Your task to perform on an android device: What's the weather? Image 0: 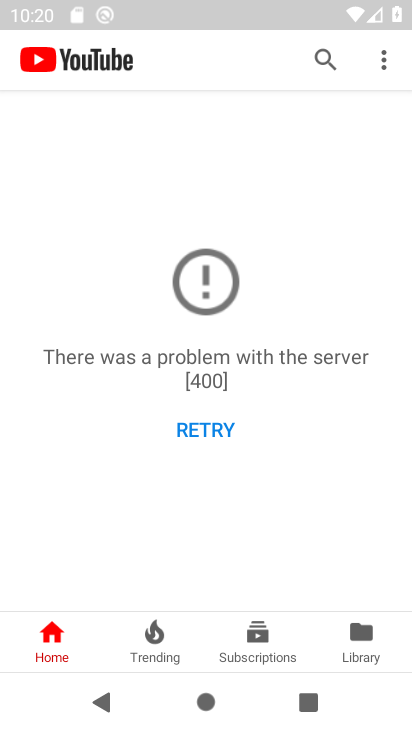
Step 0: press home button
Your task to perform on an android device: What's the weather? Image 1: 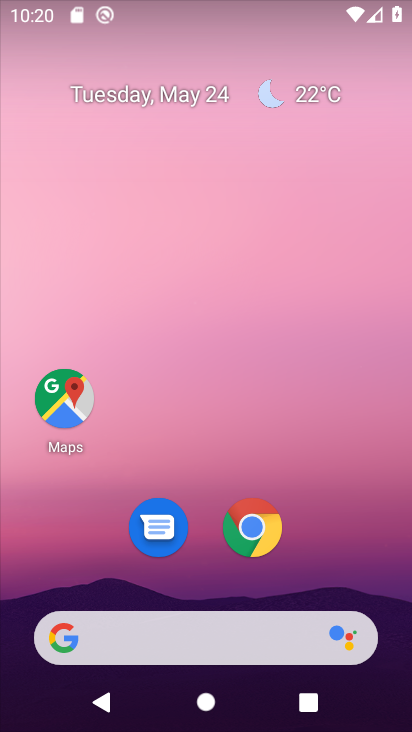
Step 1: click (73, 637)
Your task to perform on an android device: What's the weather? Image 2: 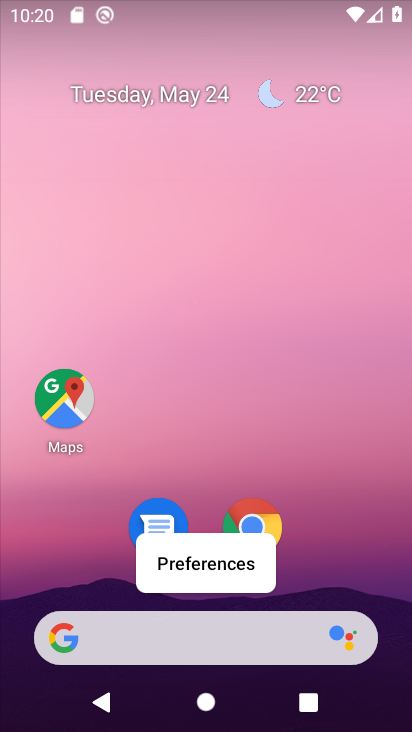
Step 2: click (68, 643)
Your task to perform on an android device: What's the weather? Image 3: 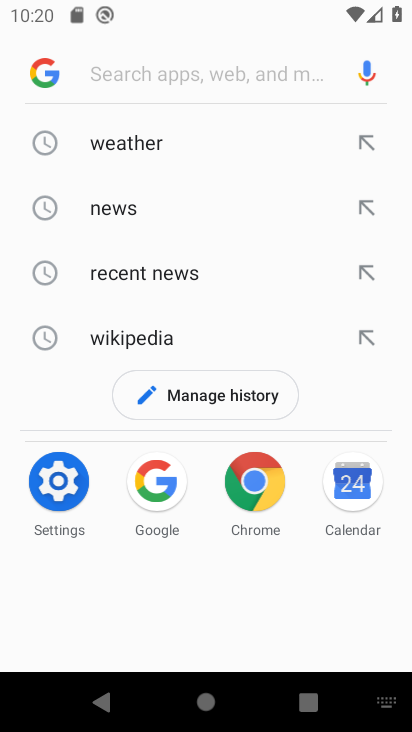
Step 3: click (130, 142)
Your task to perform on an android device: What's the weather? Image 4: 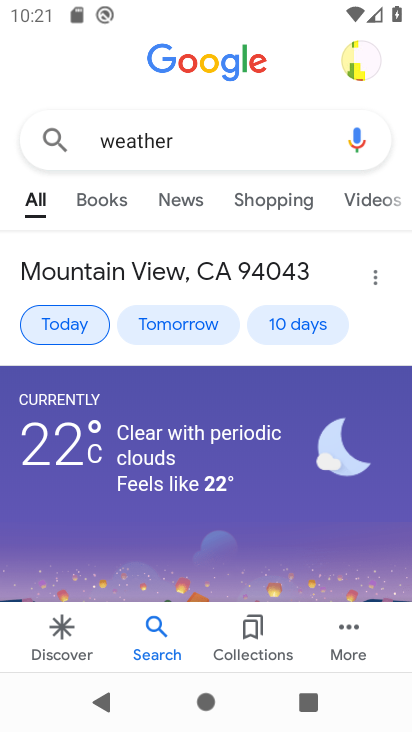
Step 4: task complete